Your task to perform on an android device: What is the recent news? Image 0: 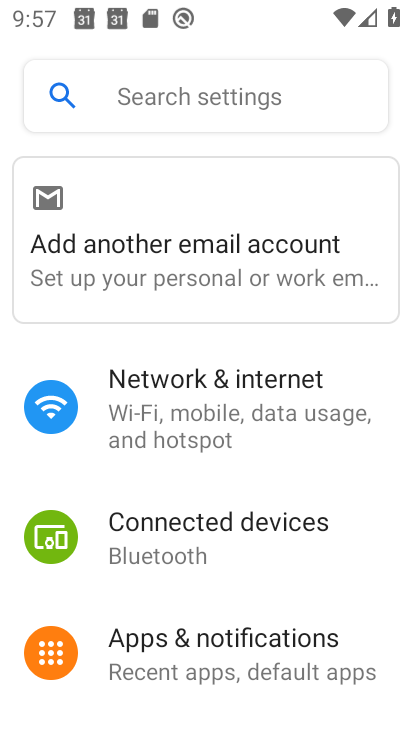
Step 0: press home button
Your task to perform on an android device: What is the recent news? Image 1: 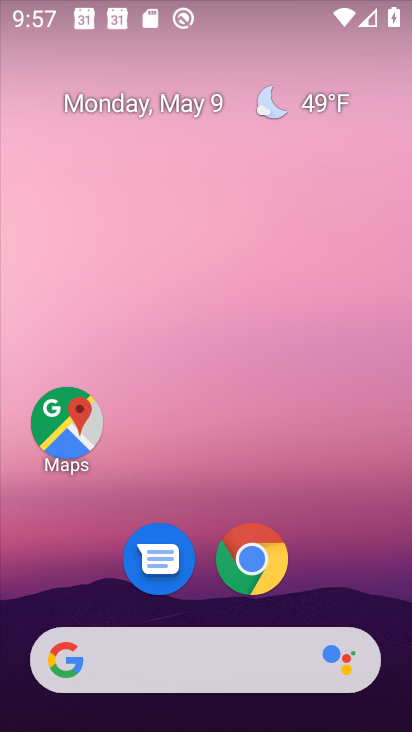
Step 1: task complete